Your task to perform on an android device: Open Yahoo.com Image 0: 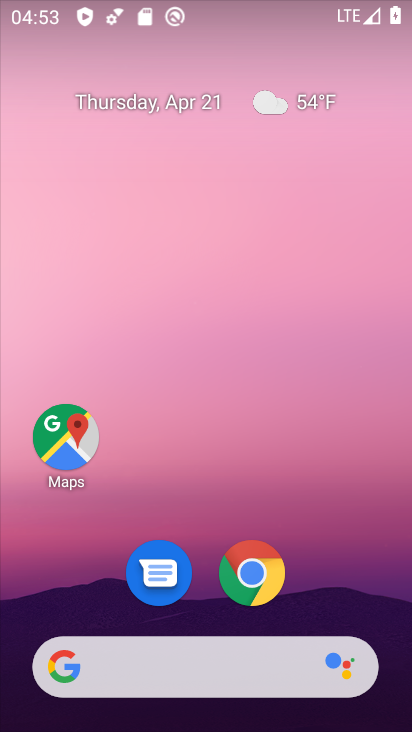
Step 0: click (246, 571)
Your task to perform on an android device: Open Yahoo.com Image 1: 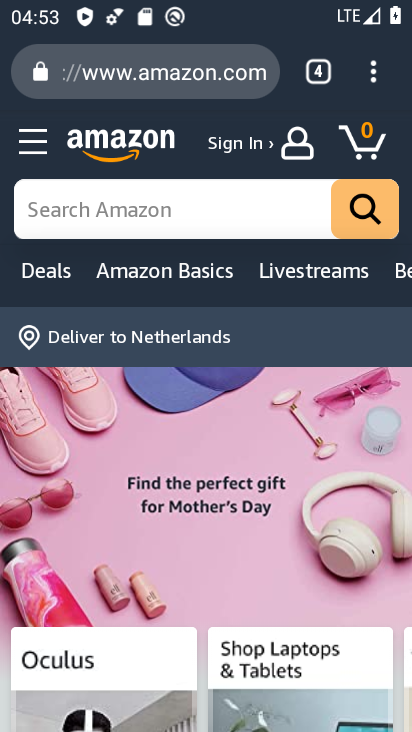
Step 1: click (116, 77)
Your task to perform on an android device: Open Yahoo.com Image 2: 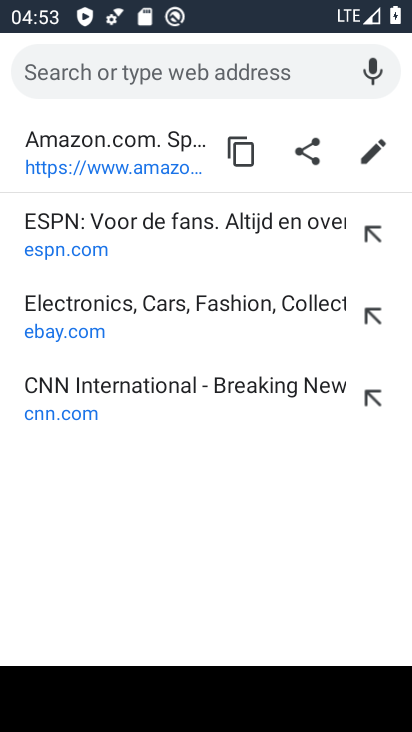
Step 2: type "yahoo.com"
Your task to perform on an android device: Open Yahoo.com Image 3: 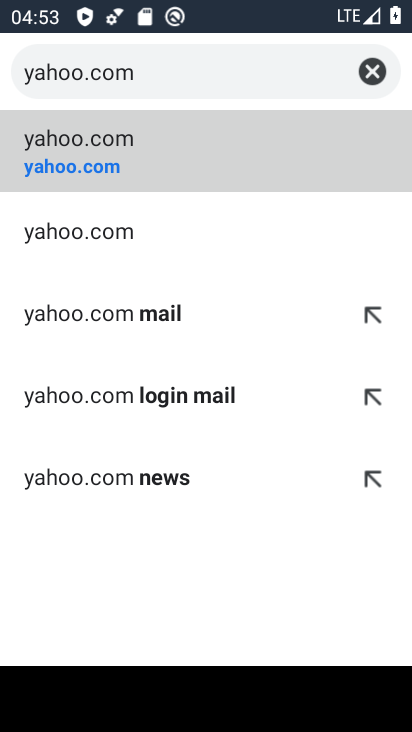
Step 3: click (69, 142)
Your task to perform on an android device: Open Yahoo.com Image 4: 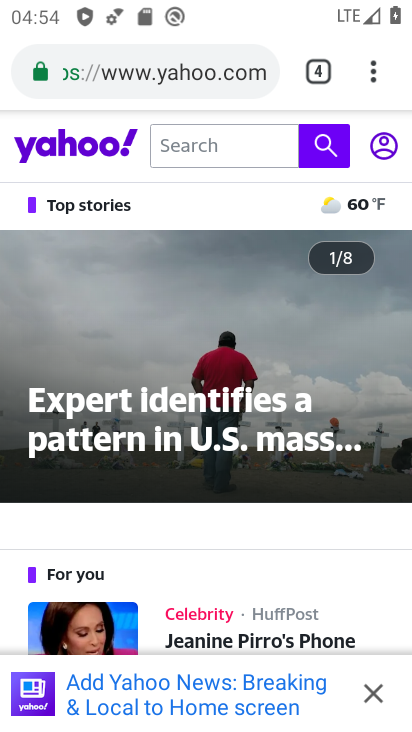
Step 4: task complete